Your task to perform on an android device: Search for Mexican restaurants on Maps Image 0: 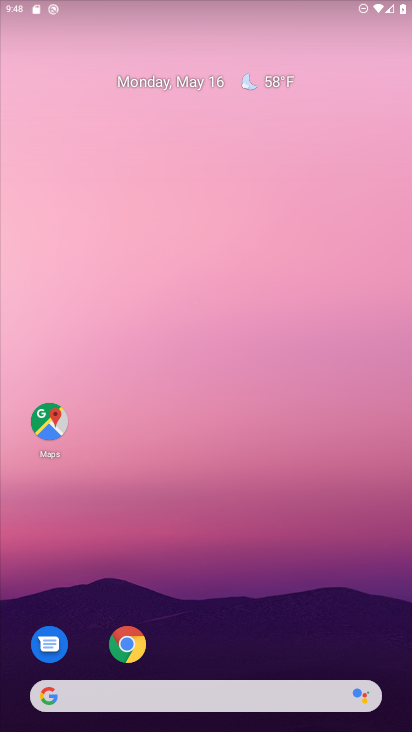
Step 0: drag from (247, 694) to (235, 49)
Your task to perform on an android device: Search for Mexican restaurants on Maps Image 1: 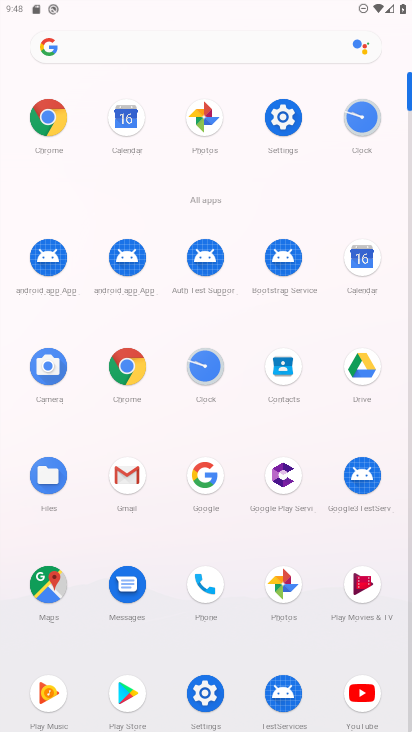
Step 1: click (46, 585)
Your task to perform on an android device: Search for Mexican restaurants on Maps Image 2: 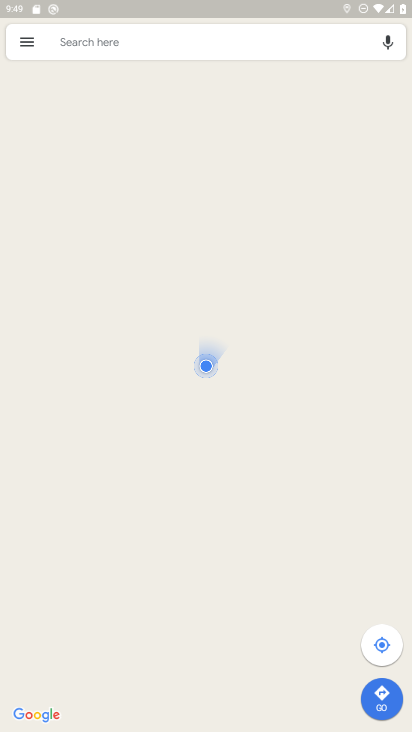
Step 2: click (149, 50)
Your task to perform on an android device: Search for Mexican restaurants on Maps Image 3: 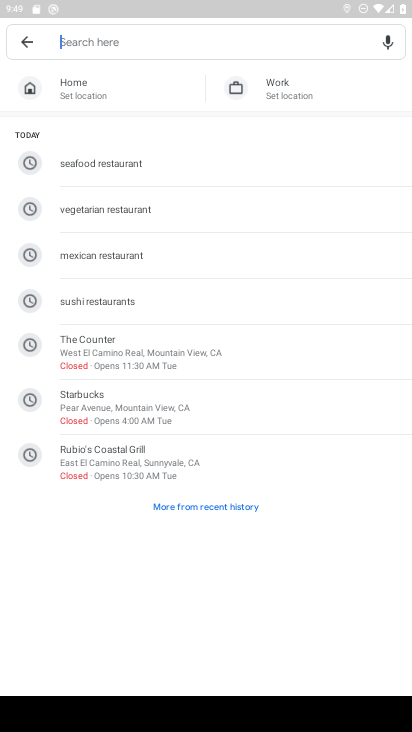
Step 3: click (121, 250)
Your task to perform on an android device: Search for Mexican restaurants on Maps Image 4: 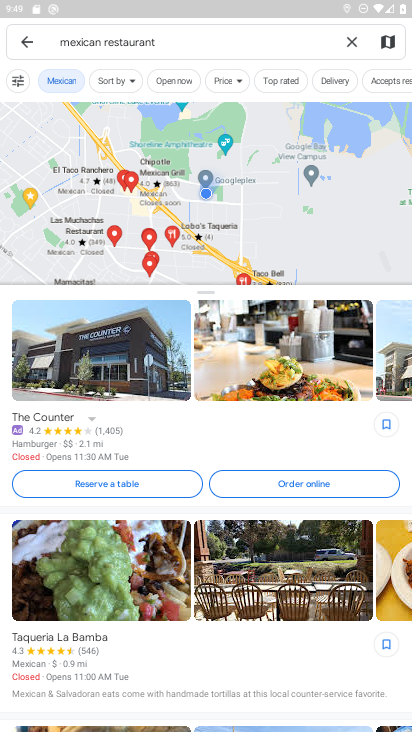
Step 4: task complete